Your task to perform on an android device: change the clock style Image 0: 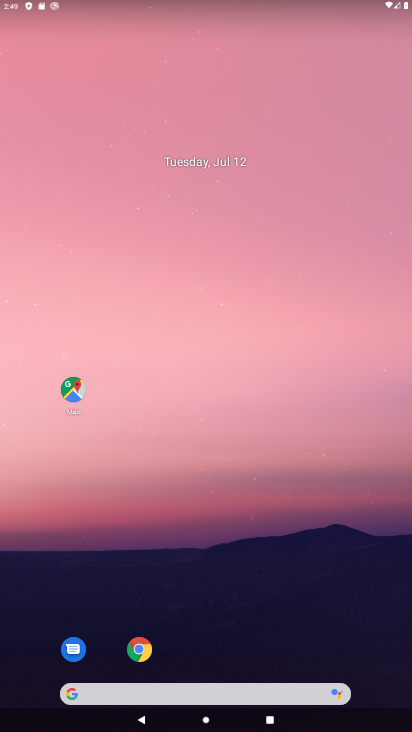
Step 0: drag from (207, 668) to (258, 145)
Your task to perform on an android device: change the clock style Image 1: 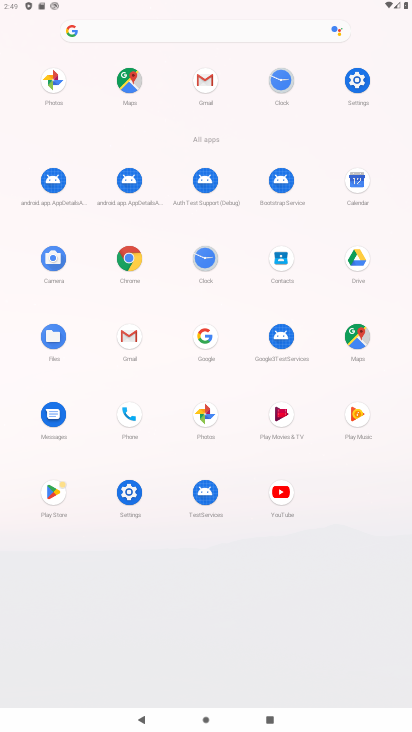
Step 1: click (207, 277)
Your task to perform on an android device: change the clock style Image 2: 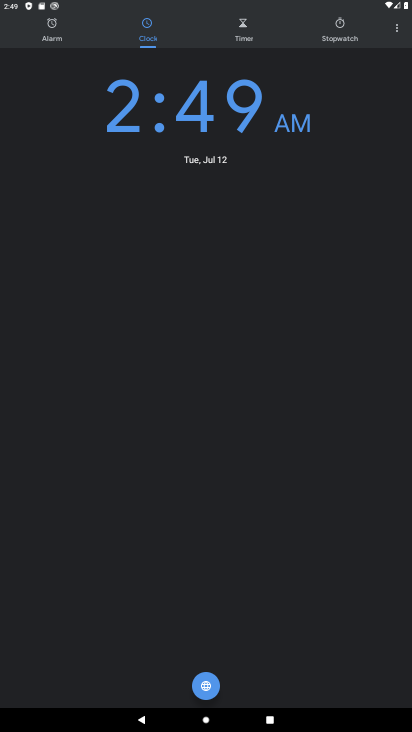
Step 2: click (402, 30)
Your task to perform on an android device: change the clock style Image 3: 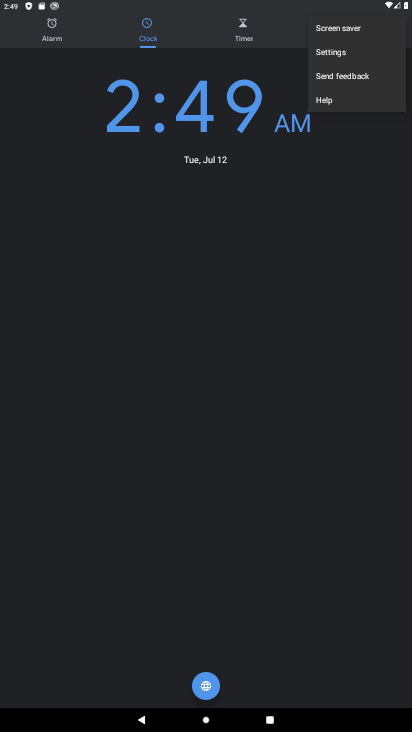
Step 3: click (359, 50)
Your task to perform on an android device: change the clock style Image 4: 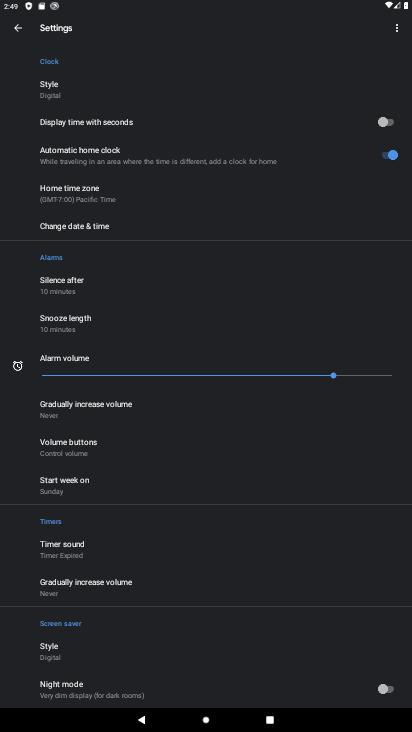
Step 4: click (124, 84)
Your task to perform on an android device: change the clock style Image 5: 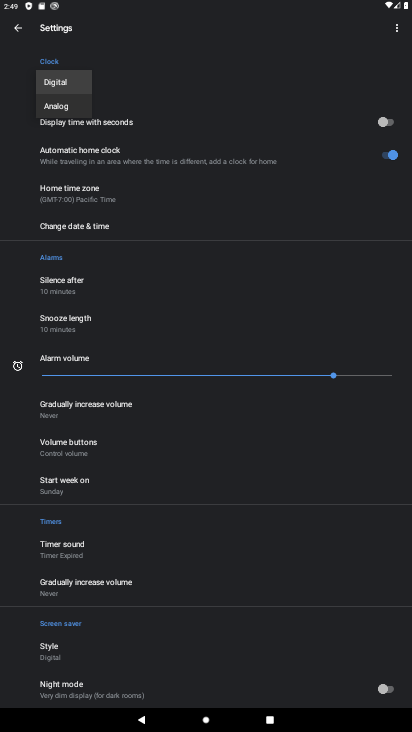
Step 5: click (82, 105)
Your task to perform on an android device: change the clock style Image 6: 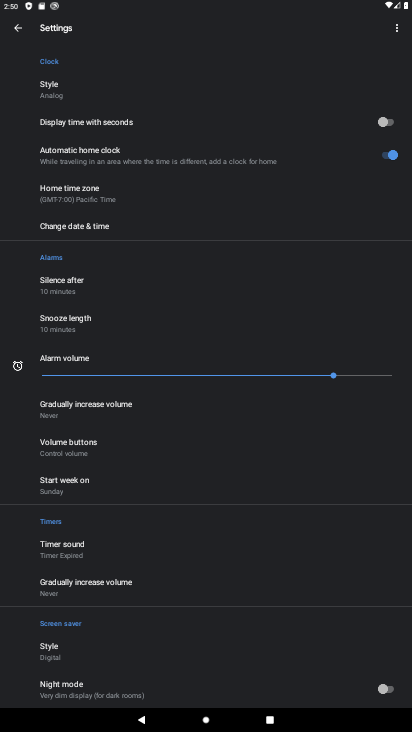
Step 6: task complete